Your task to perform on an android device: Open Wikipedia Image 0: 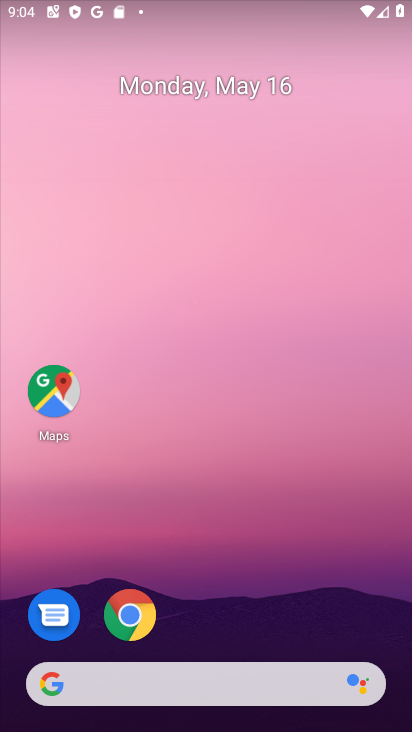
Step 0: click (113, 617)
Your task to perform on an android device: Open Wikipedia Image 1: 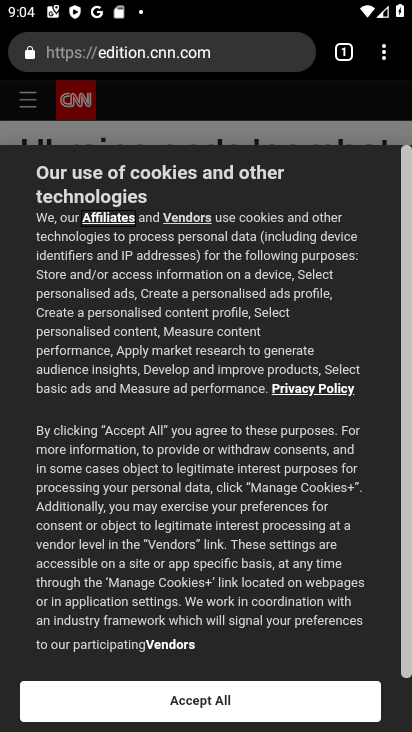
Step 1: press home button
Your task to perform on an android device: Open Wikipedia Image 2: 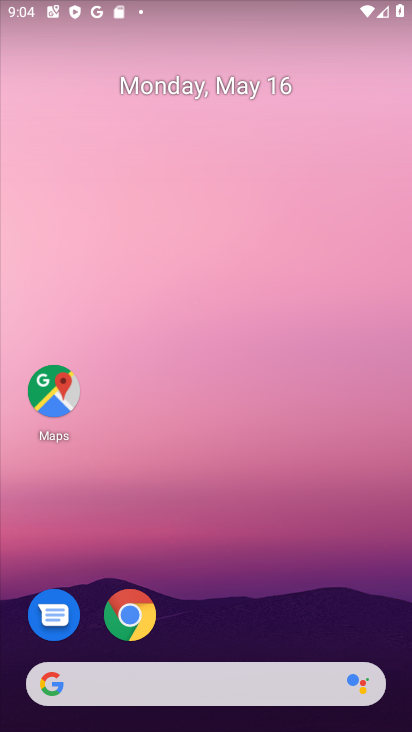
Step 2: click (134, 620)
Your task to perform on an android device: Open Wikipedia Image 3: 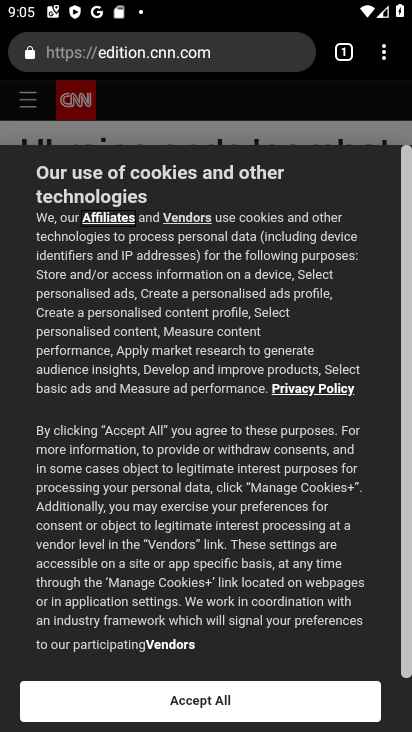
Step 3: click (341, 57)
Your task to perform on an android device: Open Wikipedia Image 4: 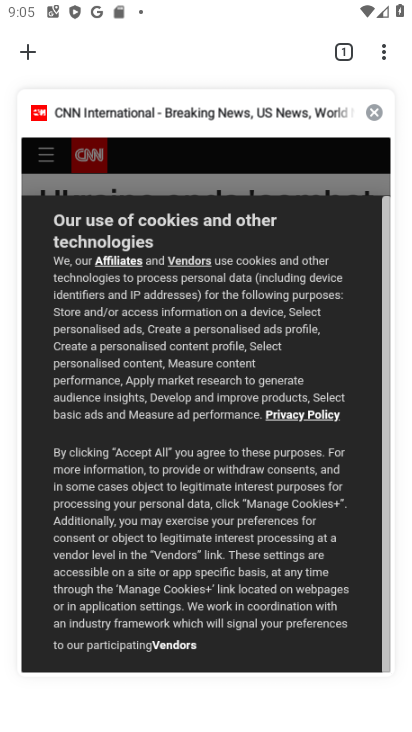
Step 4: click (375, 115)
Your task to perform on an android device: Open Wikipedia Image 5: 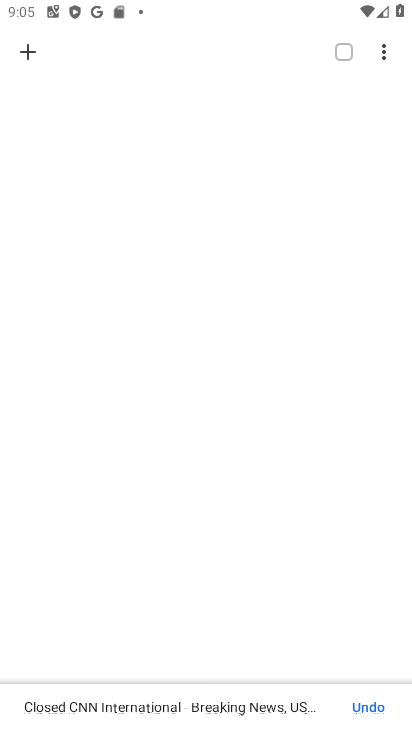
Step 5: click (37, 51)
Your task to perform on an android device: Open Wikipedia Image 6: 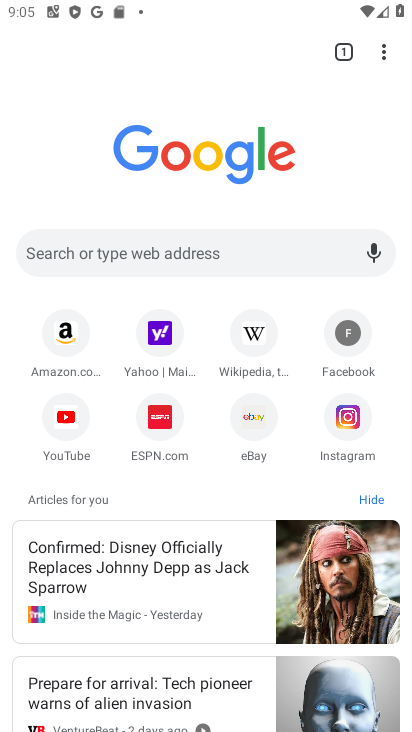
Step 6: click (265, 332)
Your task to perform on an android device: Open Wikipedia Image 7: 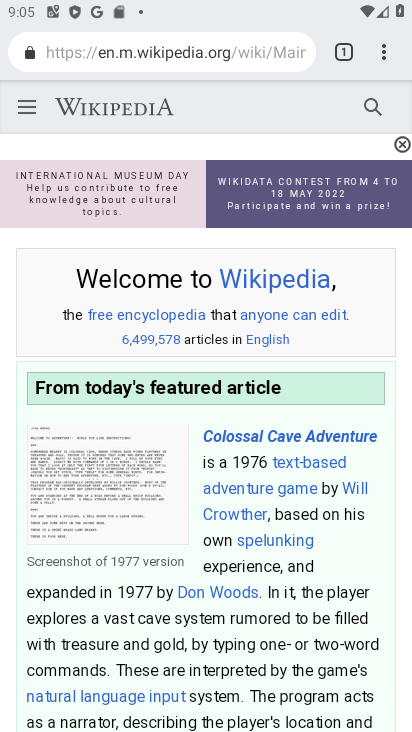
Step 7: task complete